Your task to perform on an android device: Play the last video I watched on Youtube Image 0: 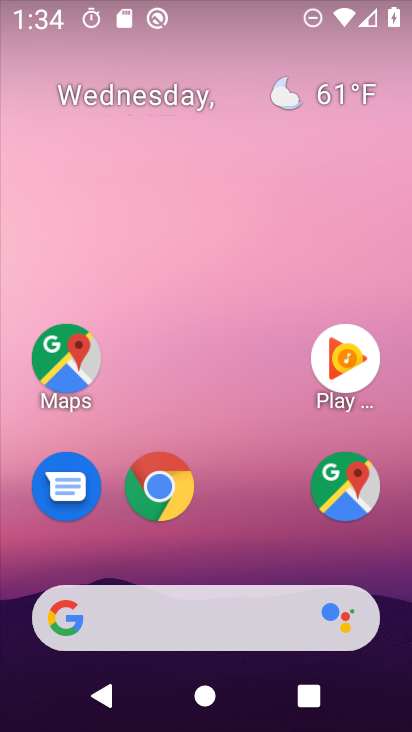
Step 0: press home button
Your task to perform on an android device: Play the last video I watched on Youtube Image 1: 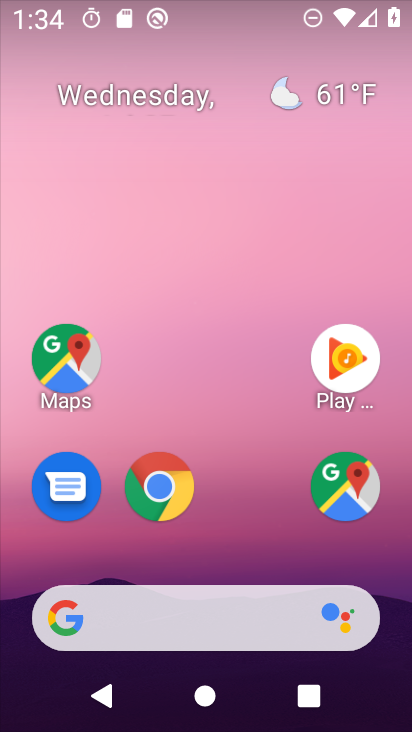
Step 1: drag from (260, 525) to (262, 72)
Your task to perform on an android device: Play the last video I watched on Youtube Image 2: 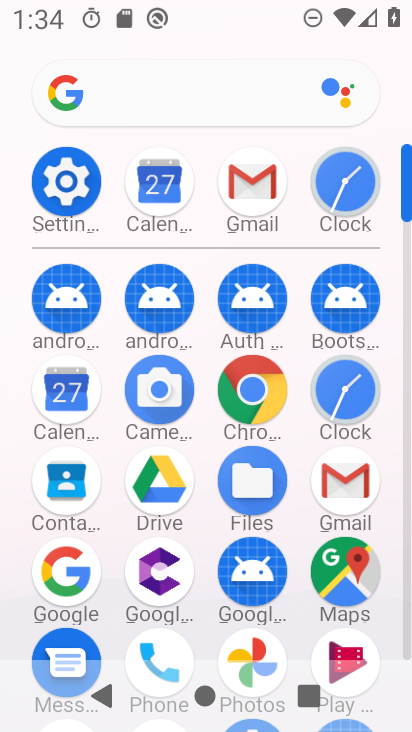
Step 2: drag from (398, 499) to (396, 247)
Your task to perform on an android device: Play the last video I watched on Youtube Image 3: 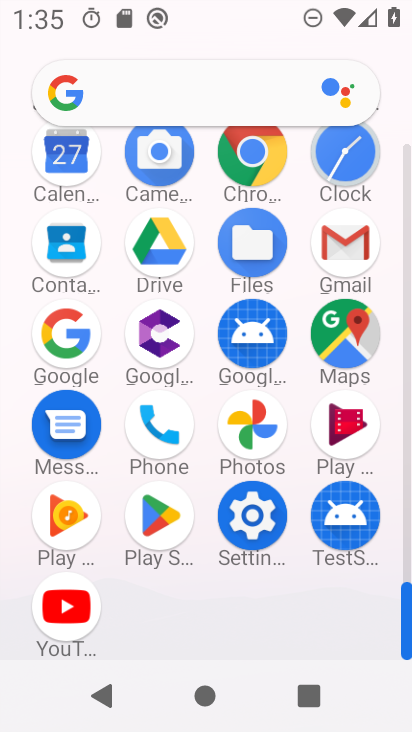
Step 3: click (63, 603)
Your task to perform on an android device: Play the last video I watched on Youtube Image 4: 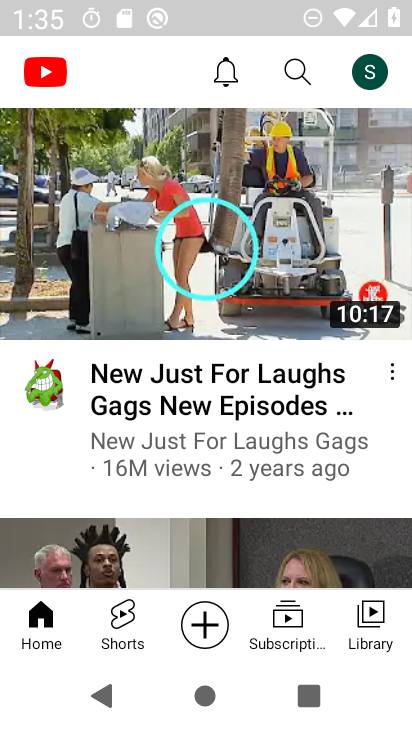
Step 4: click (371, 621)
Your task to perform on an android device: Play the last video I watched on Youtube Image 5: 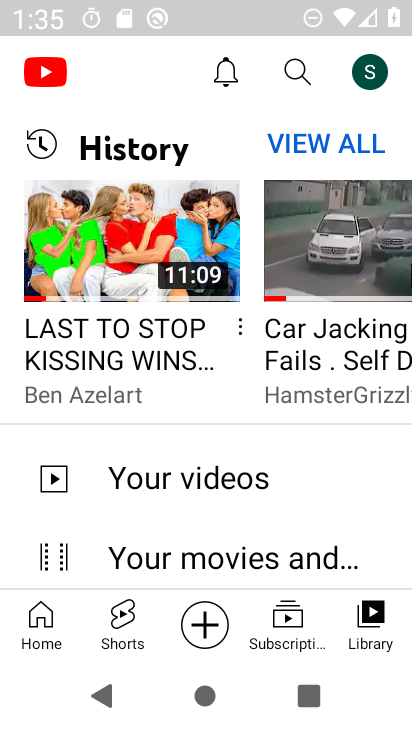
Step 5: click (122, 244)
Your task to perform on an android device: Play the last video I watched on Youtube Image 6: 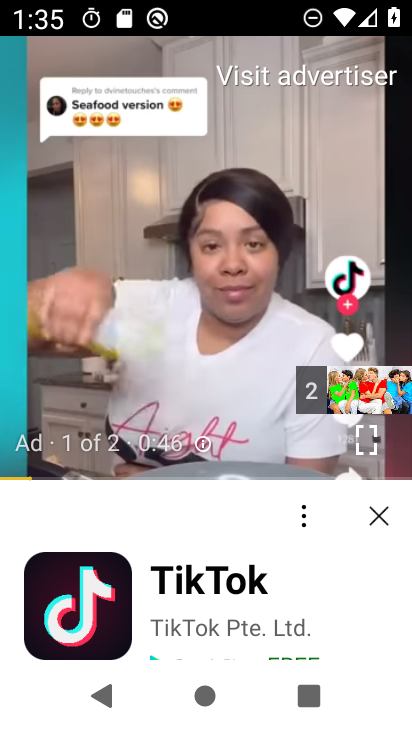
Step 6: task complete